Your task to perform on an android device: toggle wifi Image 0: 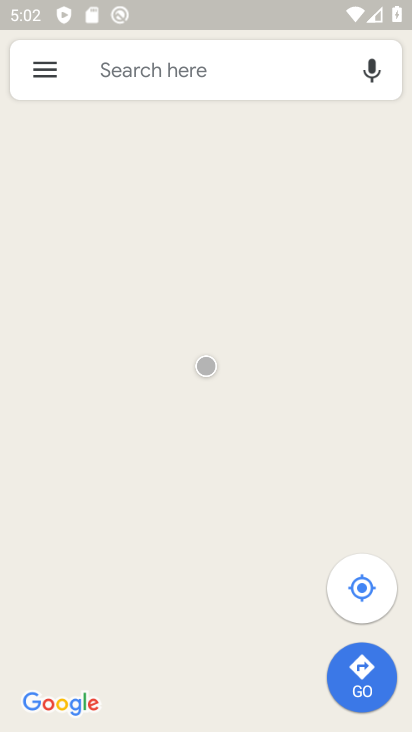
Step 0: press home button
Your task to perform on an android device: toggle wifi Image 1: 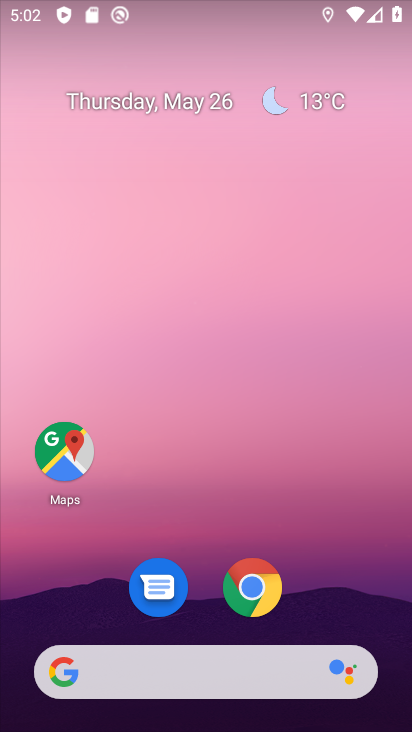
Step 1: drag from (196, 697) to (191, 92)
Your task to perform on an android device: toggle wifi Image 2: 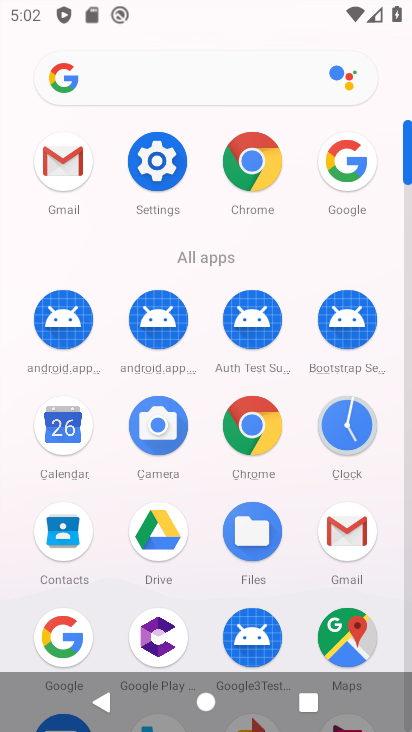
Step 2: click (155, 167)
Your task to perform on an android device: toggle wifi Image 3: 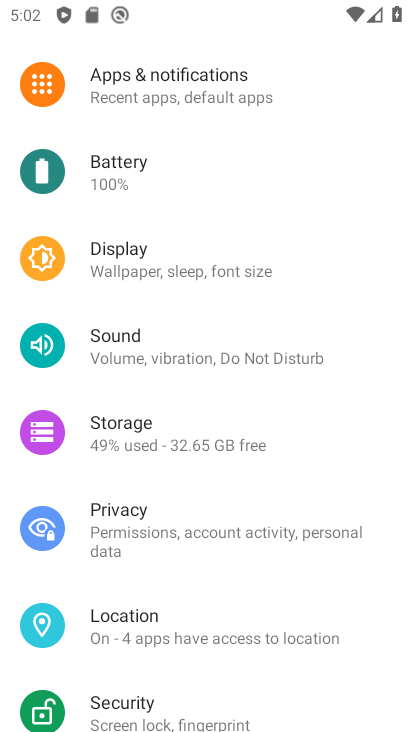
Step 3: drag from (197, 144) to (193, 606)
Your task to perform on an android device: toggle wifi Image 4: 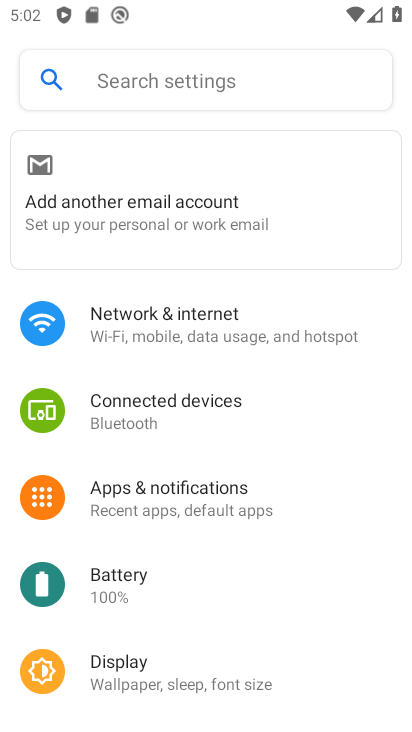
Step 4: click (152, 324)
Your task to perform on an android device: toggle wifi Image 5: 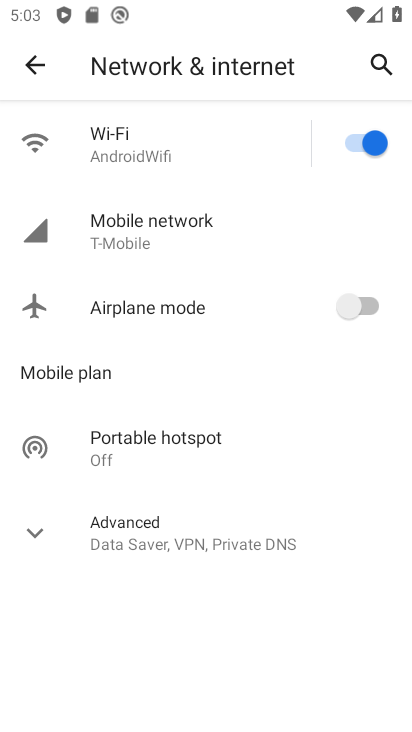
Step 5: click (362, 143)
Your task to perform on an android device: toggle wifi Image 6: 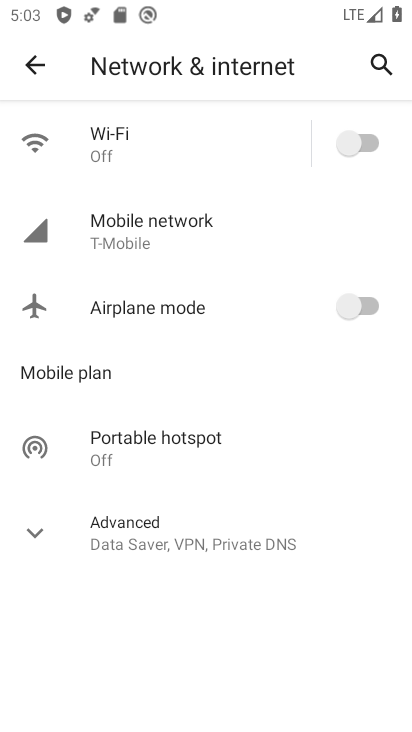
Step 6: task complete